Your task to perform on an android device: toggle wifi Image 0: 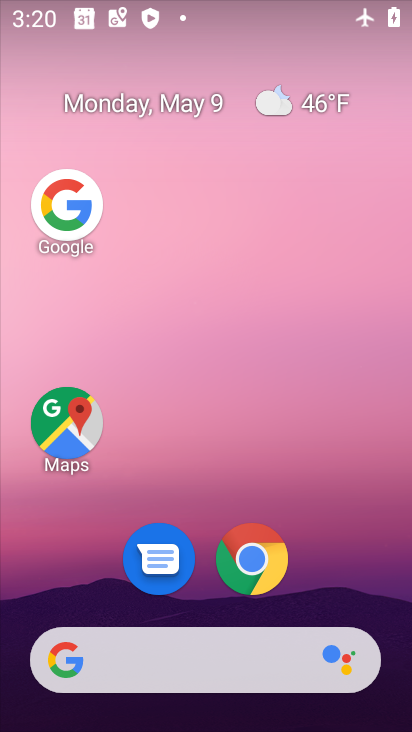
Step 0: drag from (348, 600) to (364, 213)
Your task to perform on an android device: toggle wifi Image 1: 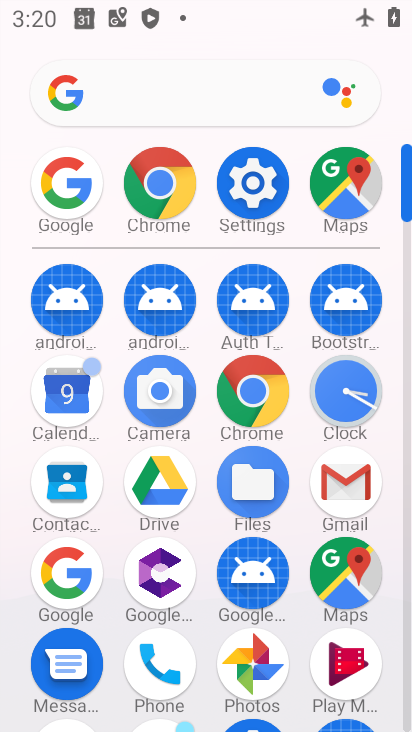
Step 1: click (266, 189)
Your task to perform on an android device: toggle wifi Image 2: 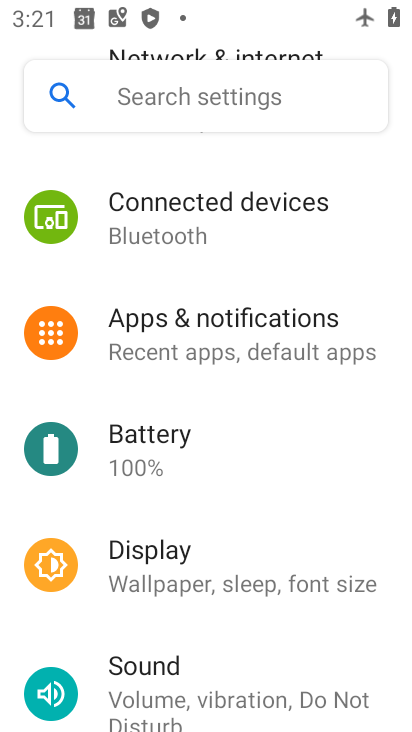
Step 2: drag from (309, 248) to (350, 617)
Your task to perform on an android device: toggle wifi Image 3: 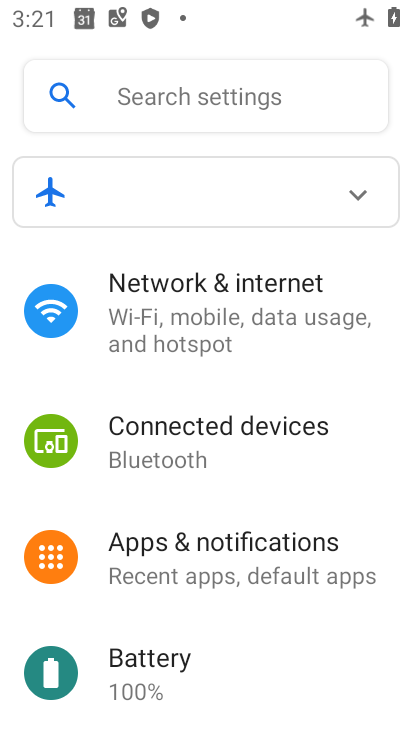
Step 3: click (256, 311)
Your task to perform on an android device: toggle wifi Image 4: 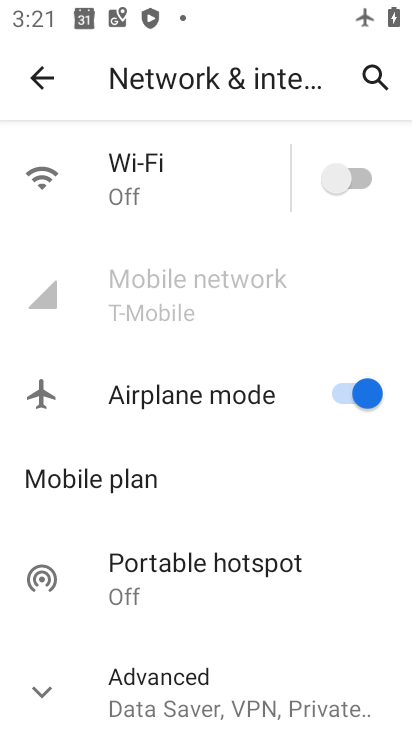
Step 4: click (347, 181)
Your task to perform on an android device: toggle wifi Image 5: 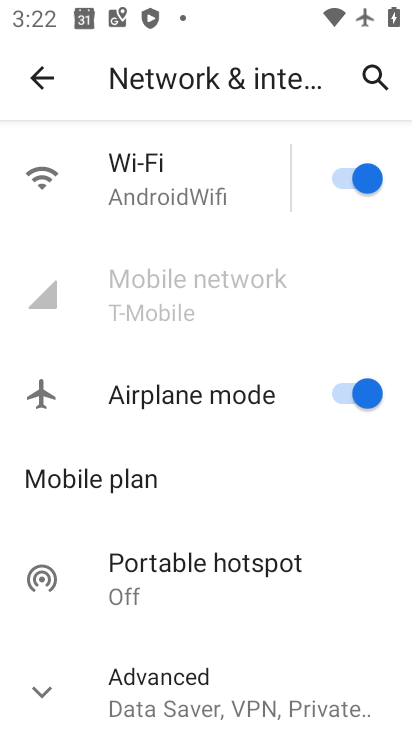
Step 5: task complete